Your task to perform on an android device: See recent photos Image 0: 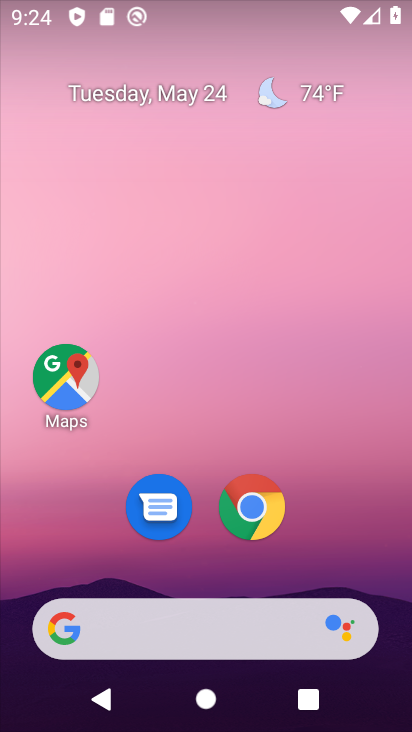
Step 0: drag from (219, 712) to (220, 73)
Your task to perform on an android device: See recent photos Image 1: 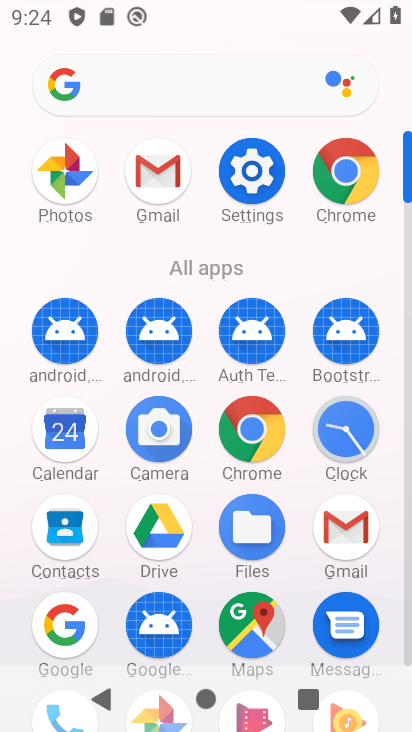
Step 1: drag from (212, 597) to (159, 180)
Your task to perform on an android device: See recent photos Image 2: 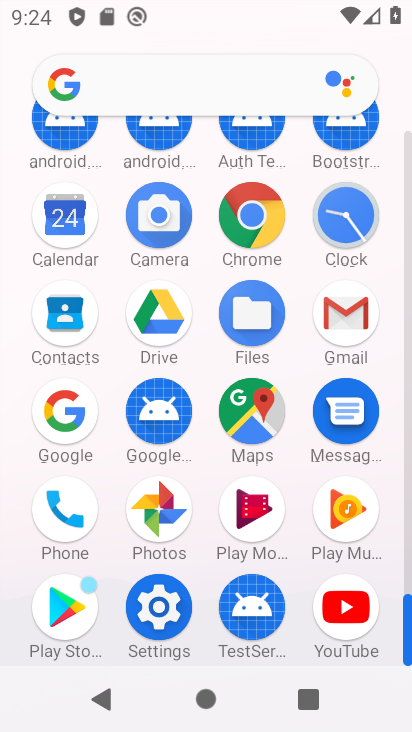
Step 2: click (166, 511)
Your task to perform on an android device: See recent photos Image 3: 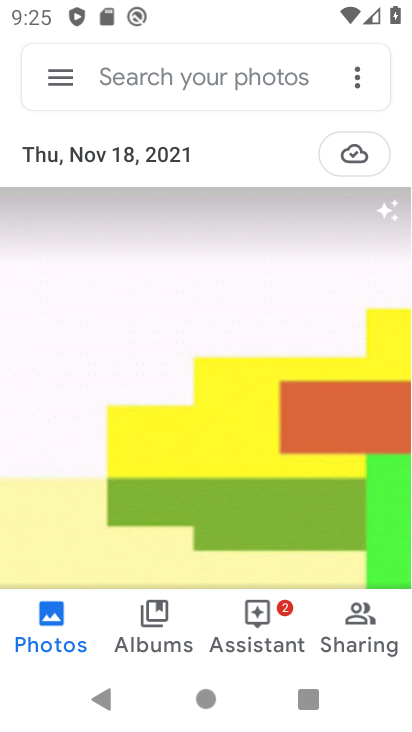
Step 3: task complete